Your task to perform on an android device: delete the emails in spam in the gmail app Image 0: 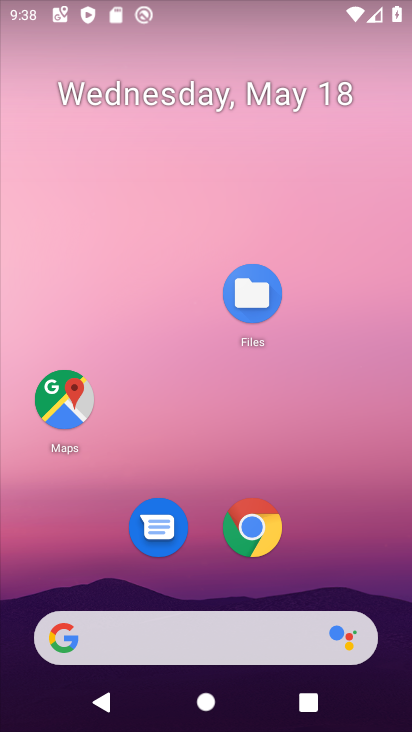
Step 0: drag from (317, 546) to (282, 139)
Your task to perform on an android device: delete the emails in spam in the gmail app Image 1: 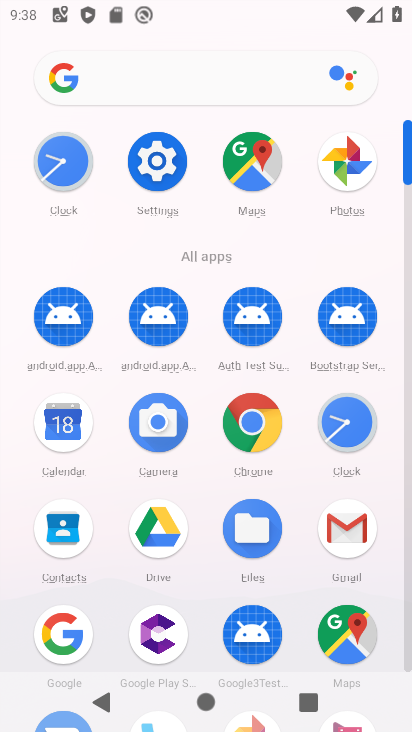
Step 1: click (351, 539)
Your task to perform on an android device: delete the emails in spam in the gmail app Image 2: 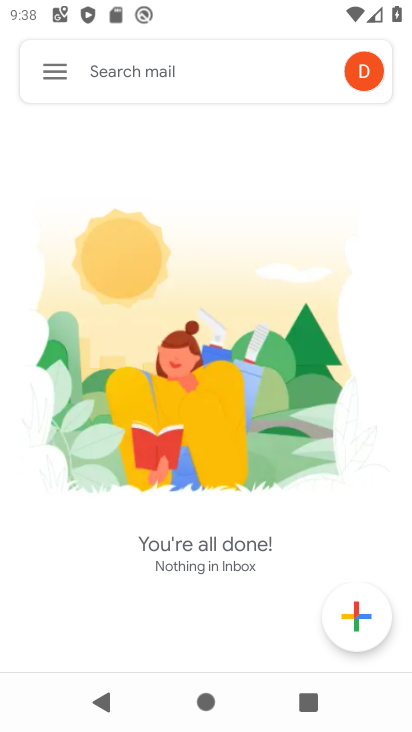
Step 2: click (62, 63)
Your task to perform on an android device: delete the emails in spam in the gmail app Image 3: 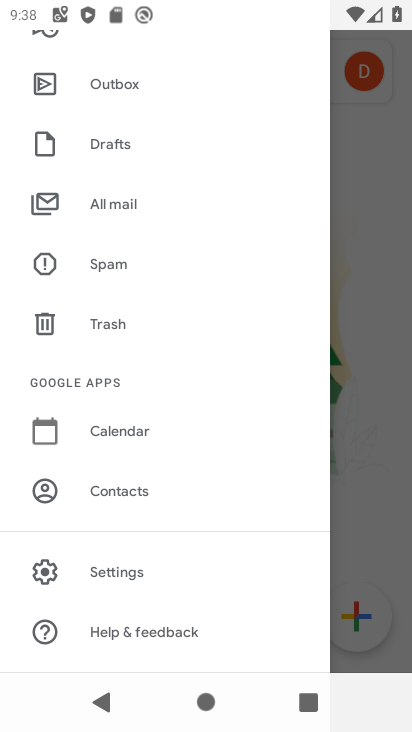
Step 3: click (128, 266)
Your task to perform on an android device: delete the emails in spam in the gmail app Image 4: 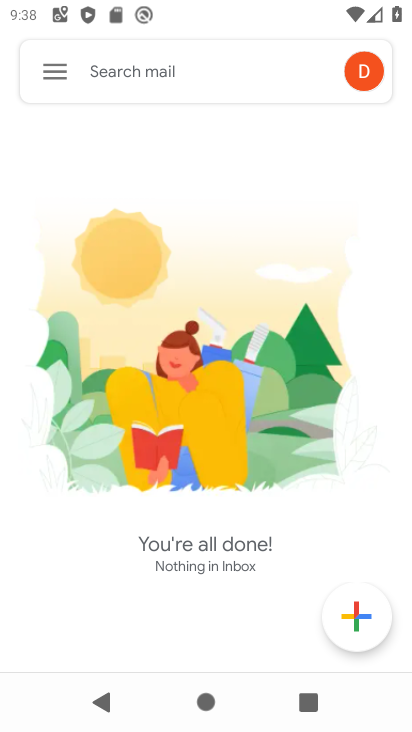
Step 4: task complete